Your task to perform on an android device: Open the phone app and click the voicemail tab. Image 0: 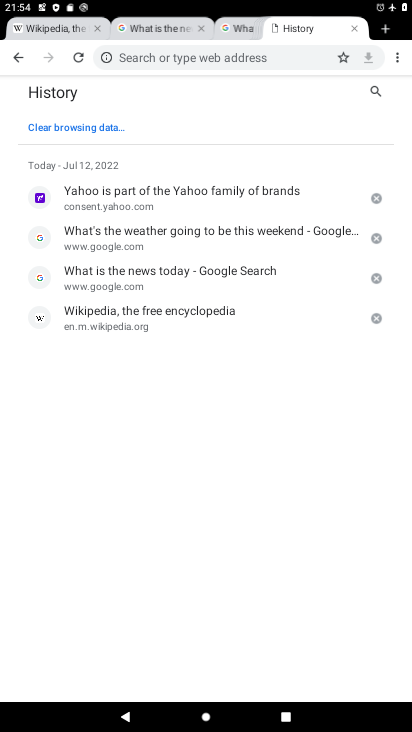
Step 0: press home button
Your task to perform on an android device: Open the phone app and click the voicemail tab. Image 1: 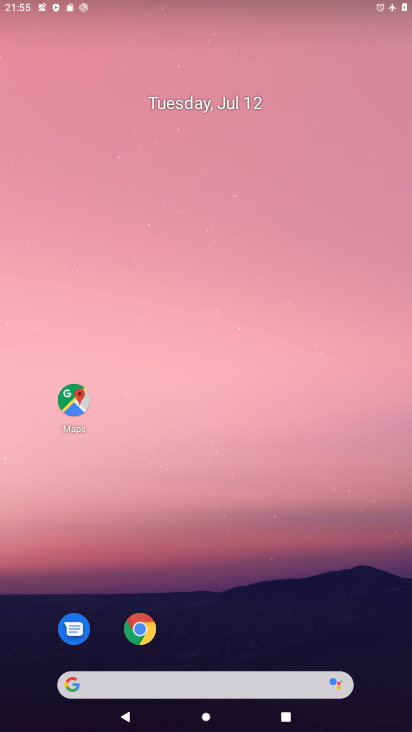
Step 1: drag from (210, 641) to (251, 168)
Your task to perform on an android device: Open the phone app and click the voicemail tab. Image 2: 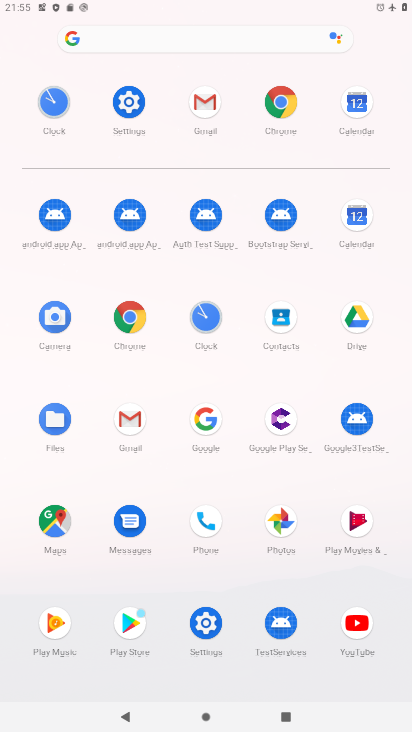
Step 2: click (210, 515)
Your task to perform on an android device: Open the phone app and click the voicemail tab. Image 3: 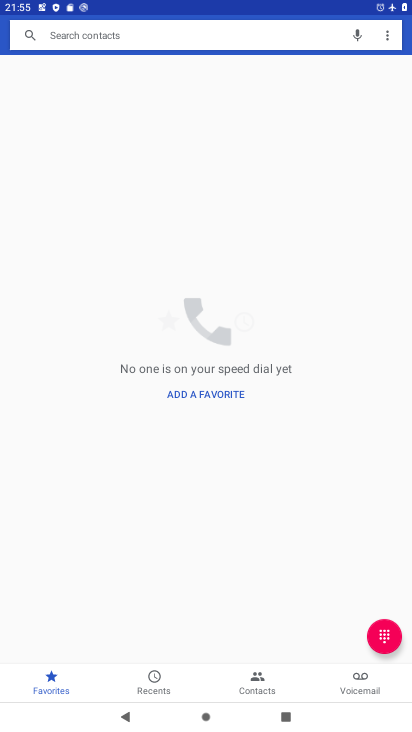
Step 3: click (371, 683)
Your task to perform on an android device: Open the phone app and click the voicemail tab. Image 4: 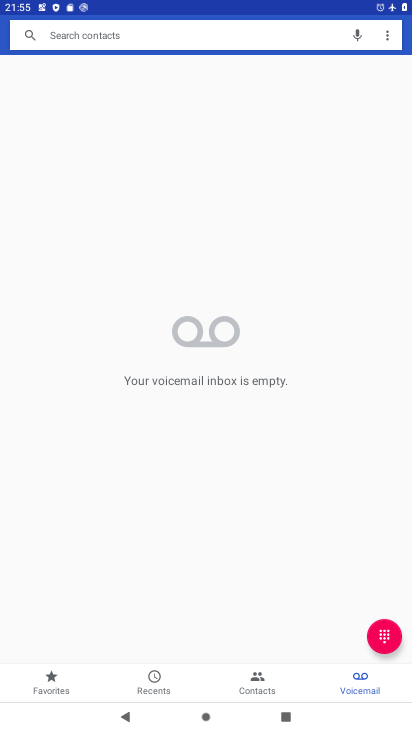
Step 4: task complete